Your task to perform on an android device: Open the web browser Image 0: 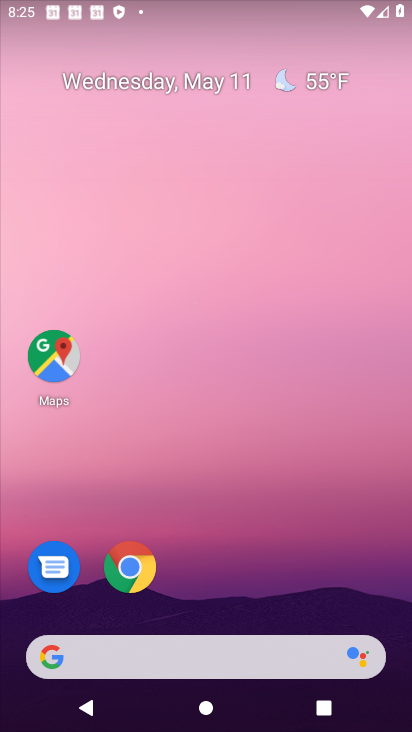
Step 0: drag from (258, 647) to (316, 12)
Your task to perform on an android device: Open the web browser Image 1: 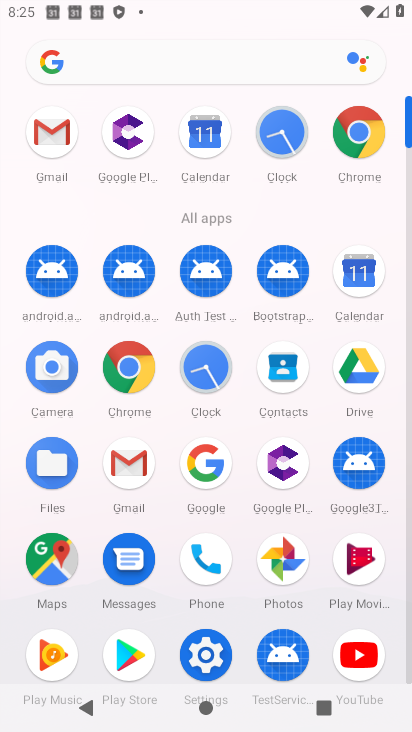
Step 1: click (128, 359)
Your task to perform on an android device: Open the web browser Image 2: 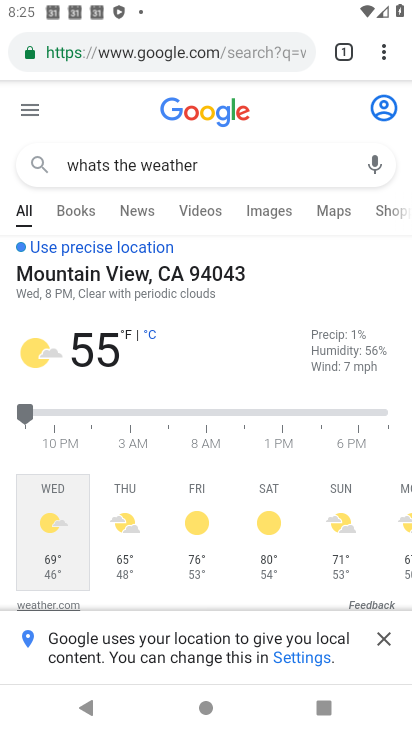
Step 2: task complete